Your task to perform on an android device: add a label to a message in the gmail app Image 0: 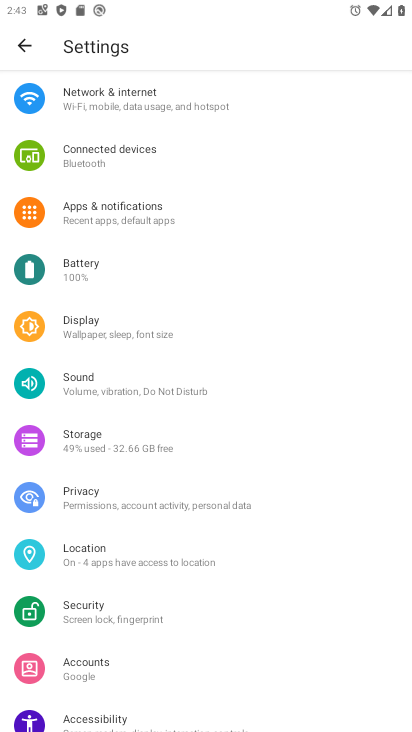
Step 0: press home button
Your task to perform on an android device: add a label to a message in the gmail app Image 1: 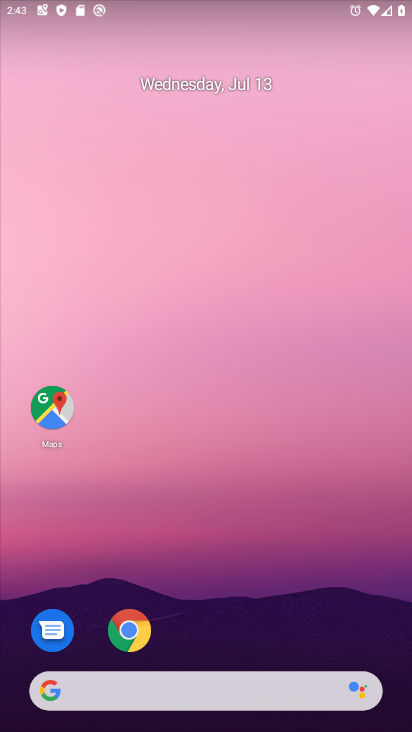
Step 1: drag from (341, 626) to (323, 167)
Your task to perform on an android device: add a label to a message in the gmail app Image 2: 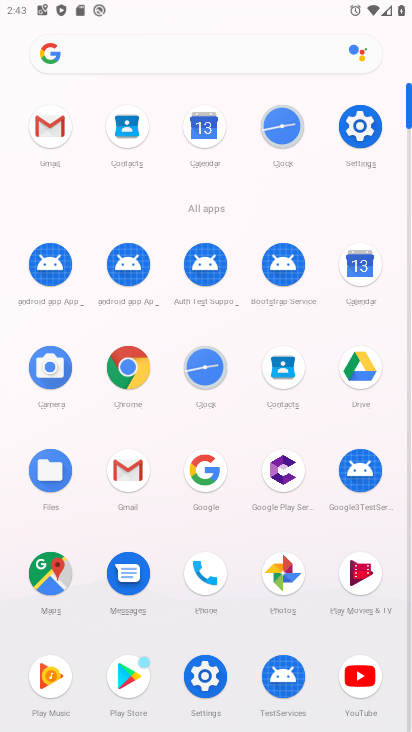
Step 2: click (129, 475)
Your task to perform on an android device: add a label to a message in the gmail app Image 3: 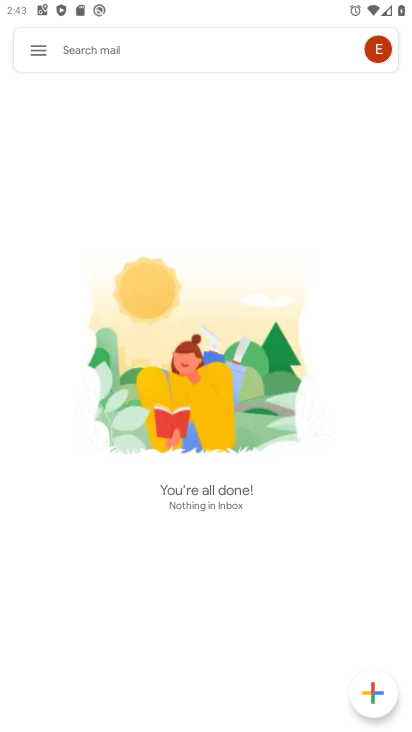
Step 3: task complete